Your task to perform on an android device: Open maps Image 0: 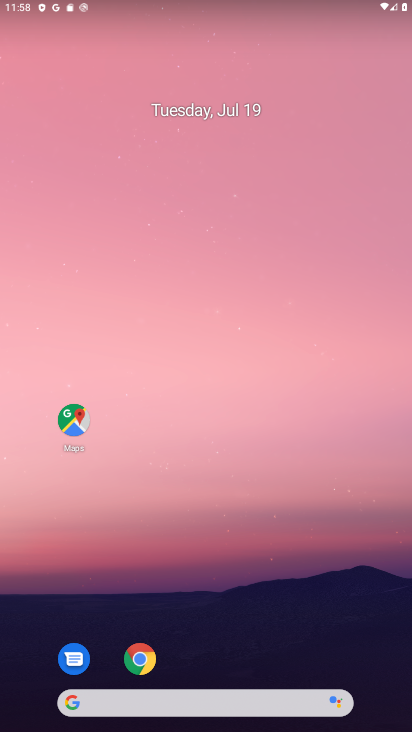
Step 0: press home button
Your task to perform on an android device: Open maps Image 1: 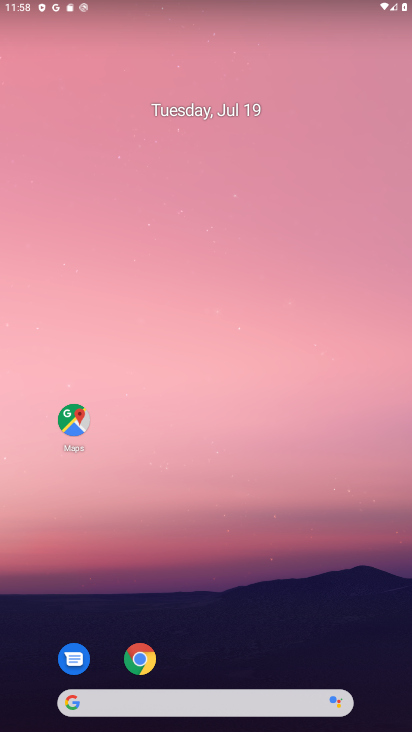
Step 1: click (67, 415)
Your task to perform on an android device: Open maps Image 2: 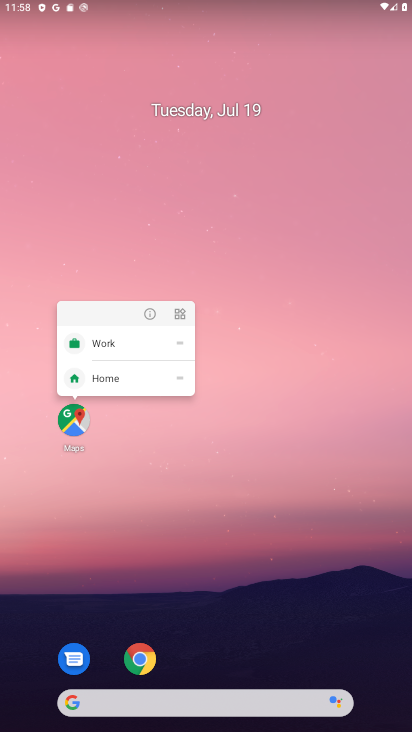
Step 2: click (66, 408)
Your task to perform on an android device: Open maps Image 3: 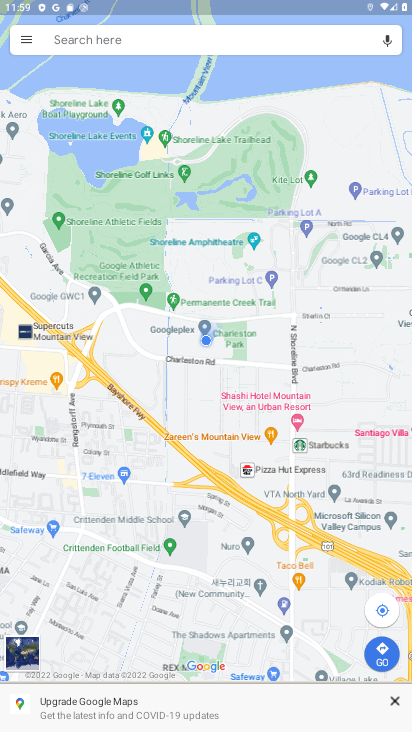
Step 3: task complete